Your task to perform on an android device: Open CNN.com Image 0: 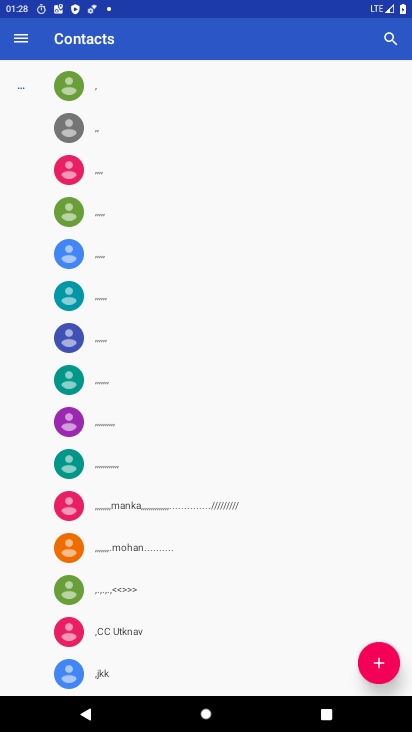
Step 0: press home button
Your task to perform on an android device: Open CNN.com Image 1: 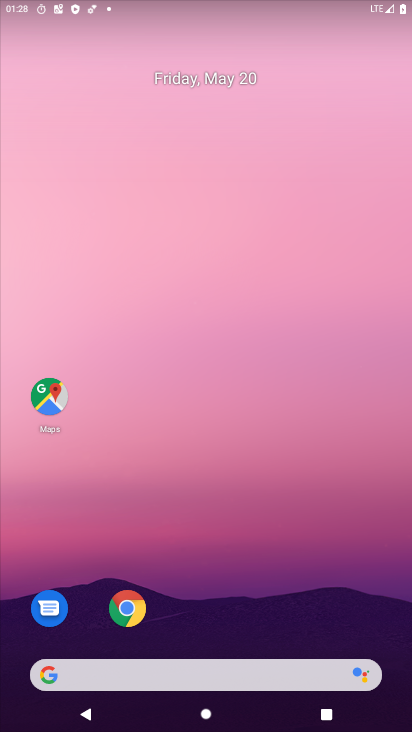
Step 1: drag from (274, 603) to (215, 161)
Your task to perform on an android device: Open CNN.com Image 2: 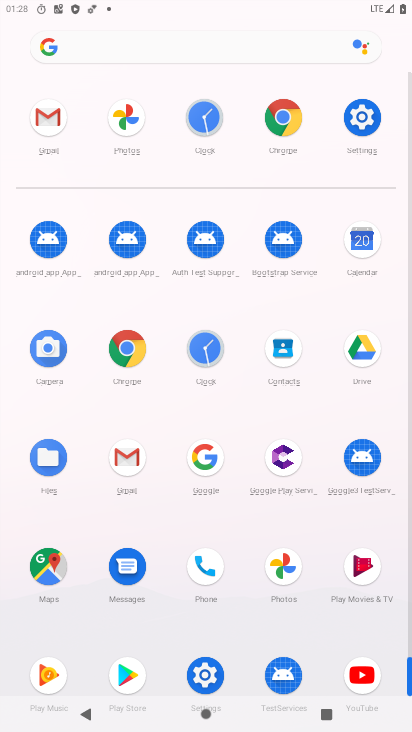
Step 2: click (126, 358)
Your task to perform on an android device: Open CNN.com Image 3: 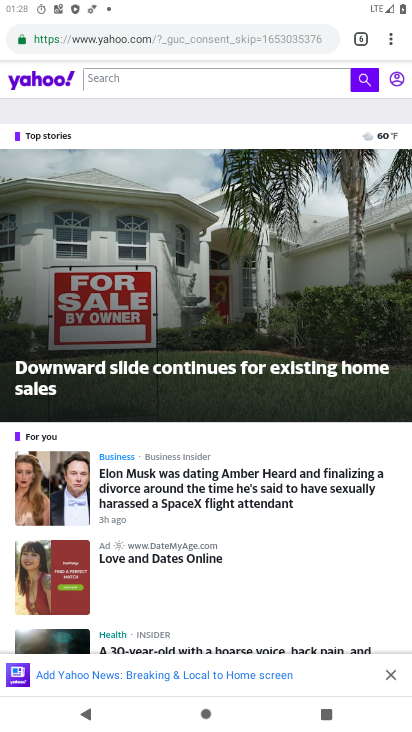
Step 3: click (152, 39)
Your task to perform on an android device: Open CNN.com Image 4: 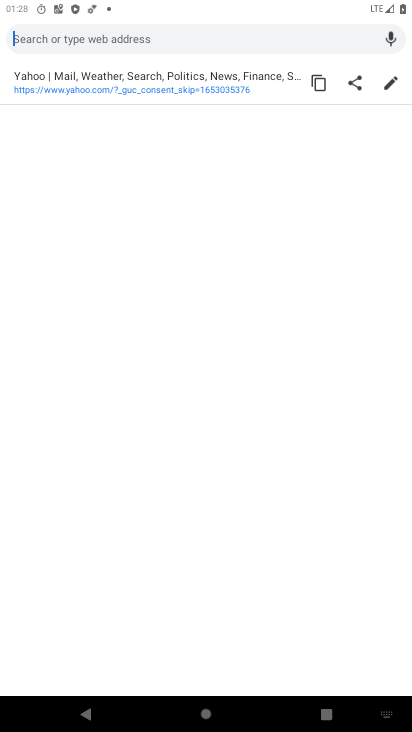
Step 4: type "cnn.com"
Your task to perform on an android device: Open CNN.com Image 5: 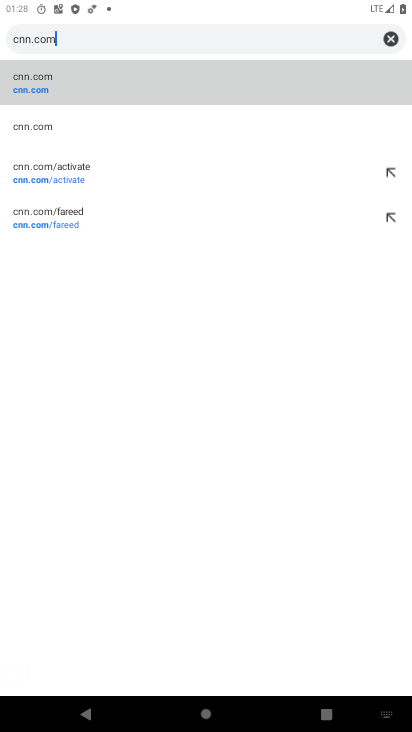
Step 5: click (81, 82)
Your task to perform on an android device: Open CNN.com Image 6: 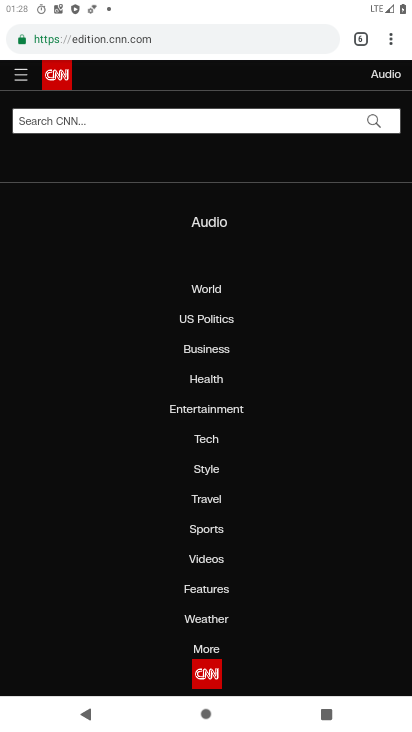
Step 6: task complete